Your task to perform on an android device: Open Google Image 0: 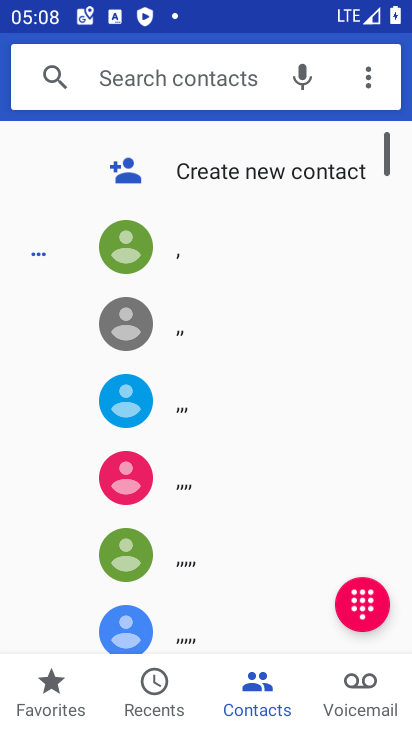
Step 0: press home button
Your task to perform on an android device: Open Google Image 1: 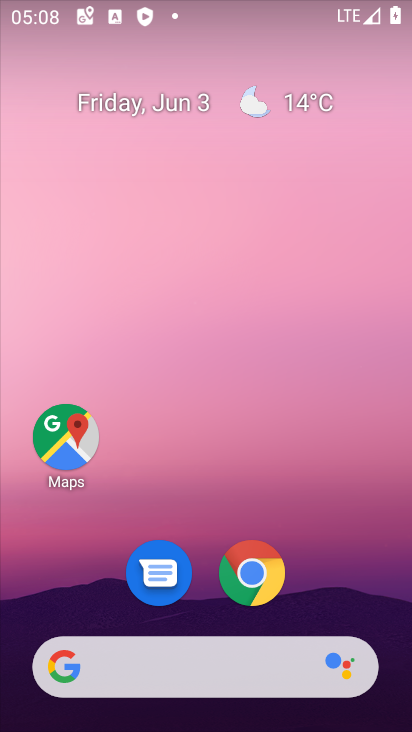
Step 1: drag from (336, 605) to (251, 77)
Your task to perform on an android device: Open Google Image 2: 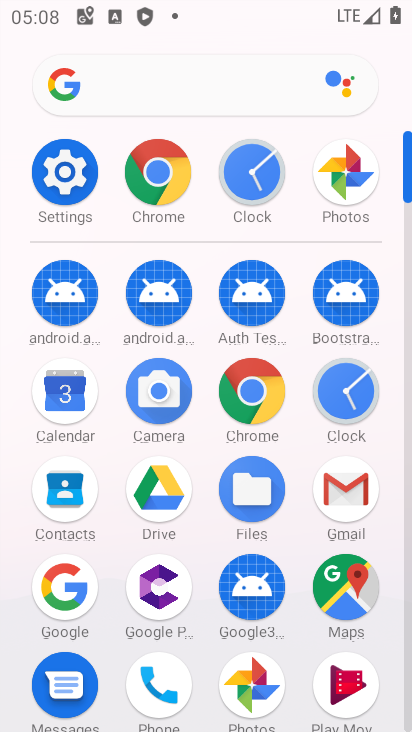
Step 2: click (117, 81)
Your task to perform on an android device: Open Google Image 3: 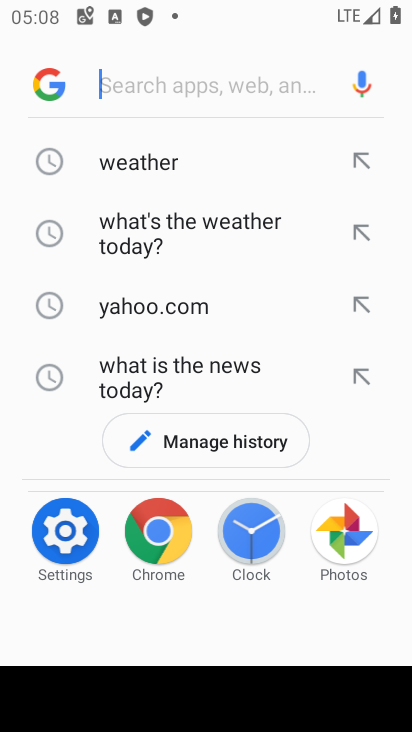
Step 3: type "google"
Your task to perform on an android device: Open Google Image 4: 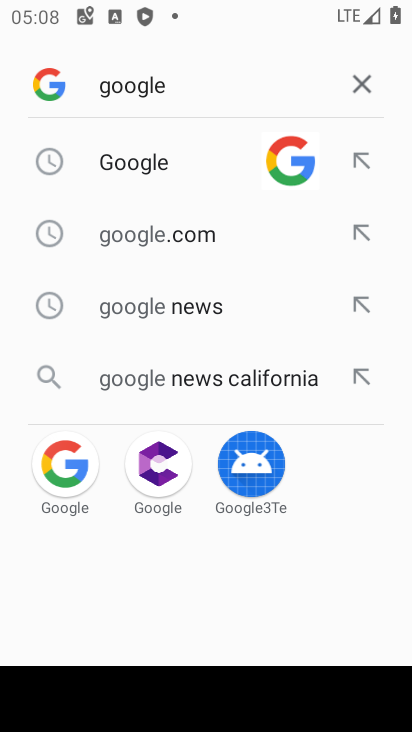
Step 4: click (189, 164)
Your task to perform on an android device: Open Google Image 5: 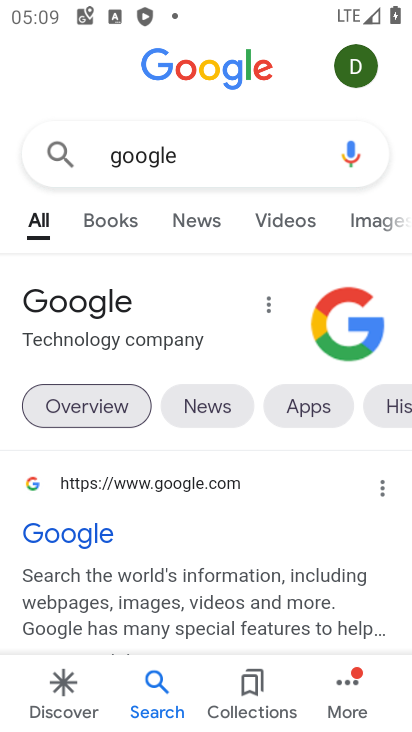
Step 5: click (77, 532)
Your task to perform on an android device: Open Google Image 6: 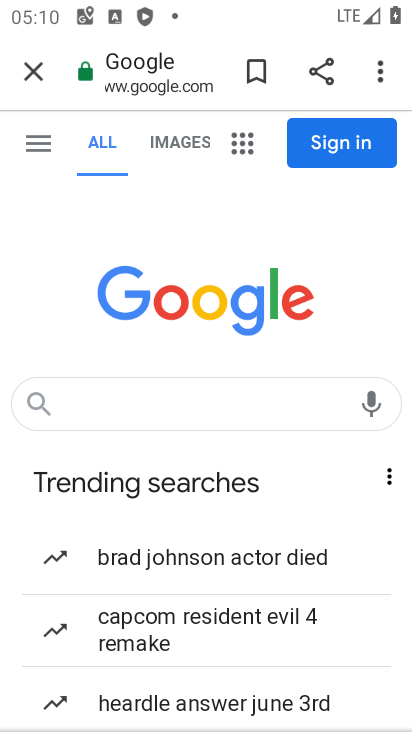
Step 6: task complete